Your task to perform on an android device: turn on javascript in the chrome app Image 0: 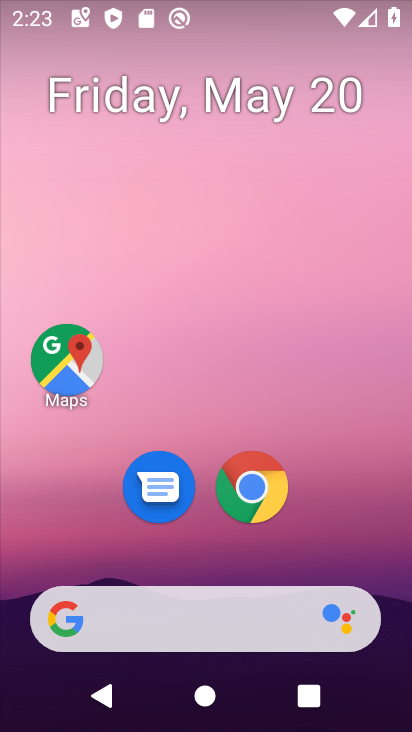
Step 0: drag from (329, 554) to (300, 0)
Your task to perform on an android device: turn on javascript in the chrome app Image 1: 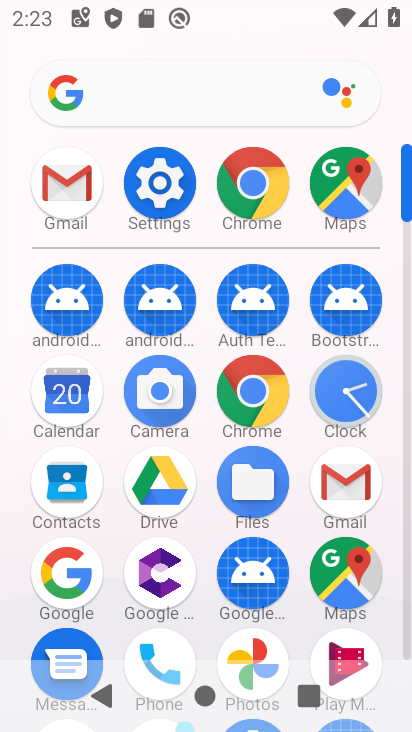
Step 1: click (284, 191)
Your task to perform on an android device: turn on javascript in the chrome app Image 2: 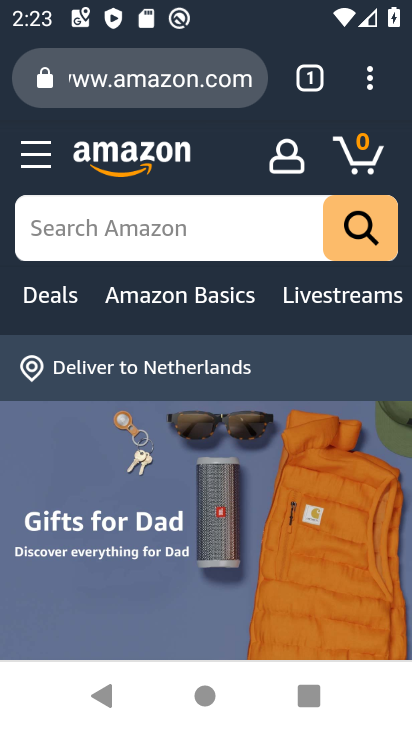
Step 2: drag from (371, 88) to (89, 562)
Your task to perform on an android device: turn on javascript in the chrome app Image 3: 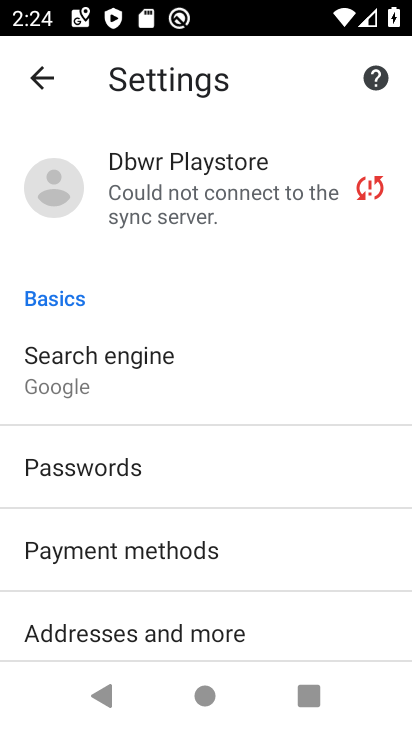
Step 3: drag from (159, 597) to (218, 113)
Your task to perform on an android device: turn on javascript in the chrome app Image 4: 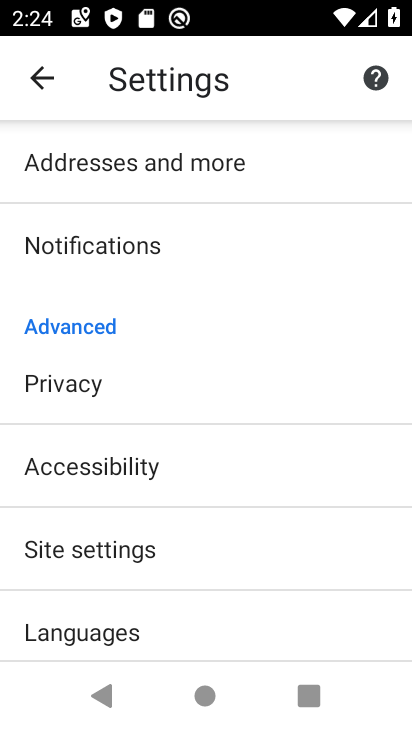
Step 4: click (135, 546)
Your task to perform on an android device: turn on javascript in the chrome app Image 5: 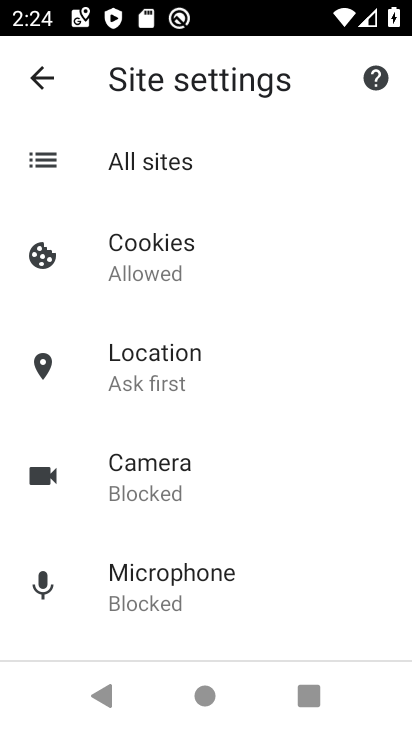
Step 5: drag from (226, 588) to (270, 244)
Your task to perform on an android device: turn on javascript in the chrome app Image 6: 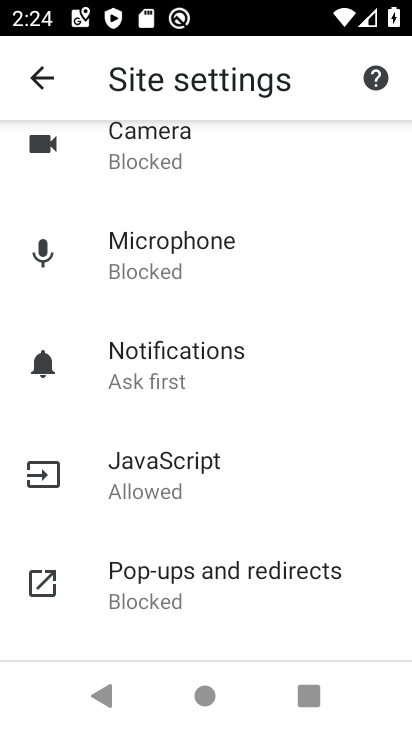
Step 6: click (187, 482)
Your task to perform on an android device: turn on javascript in the chrome app Image 7: 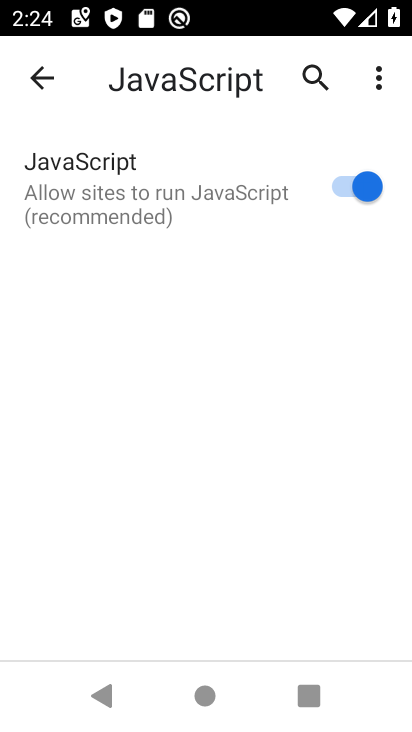
Step 7: task complete